Your task to perform on an android device: change the clock display to show seconds Image 0: 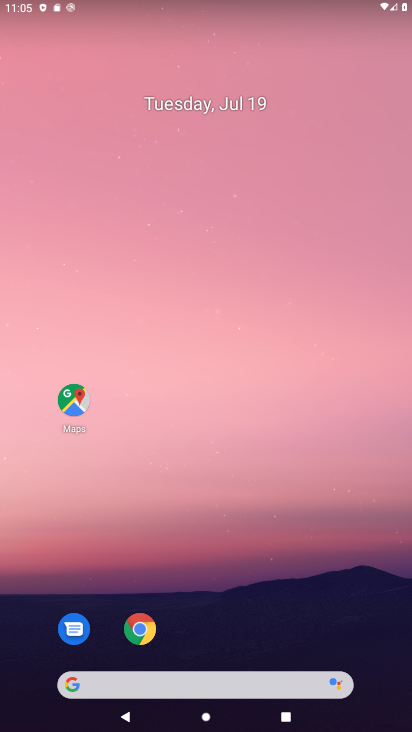
Step 0: drag from (345, 602) to (377, 111)
Your task to perform on an android device: change the clock display to show seconds Image 1: 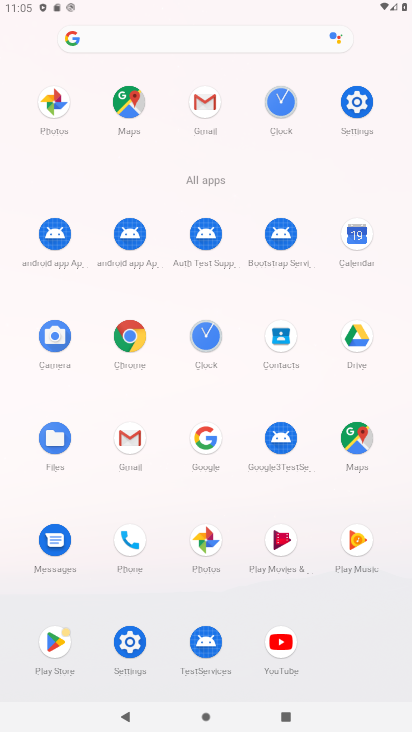
Step 1: click (215, 338)
Your task to perform on an android device: change the clock display to show seconds Image 2: 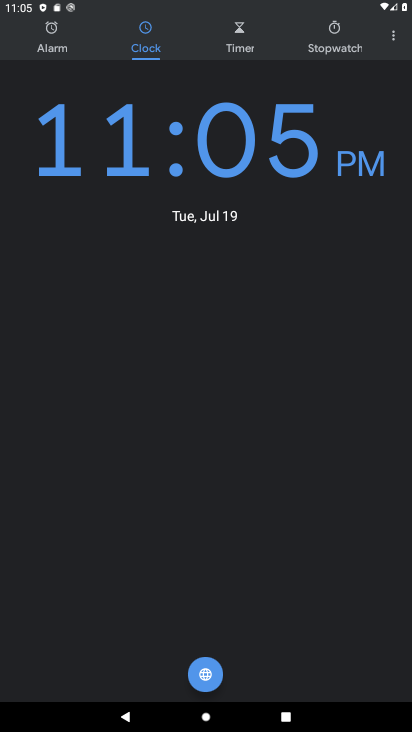
Step 2: click (394, 40)
Your task to perform on an android device: change the clock display to show seconds Image 3: 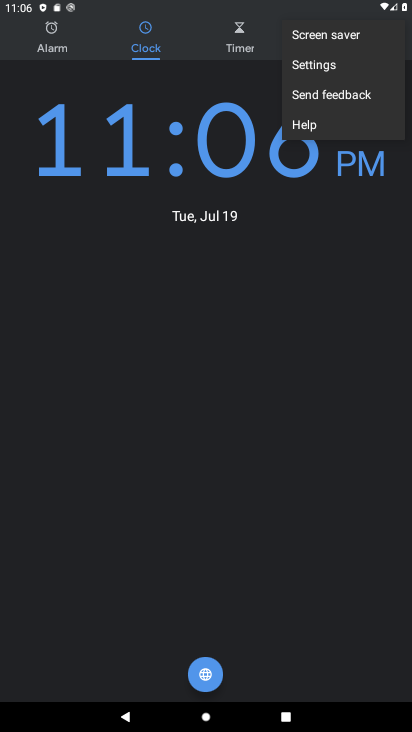
Step 3: click (350, 64)
Your task to perform on an android device: change the clock display to show seconds Image 4: 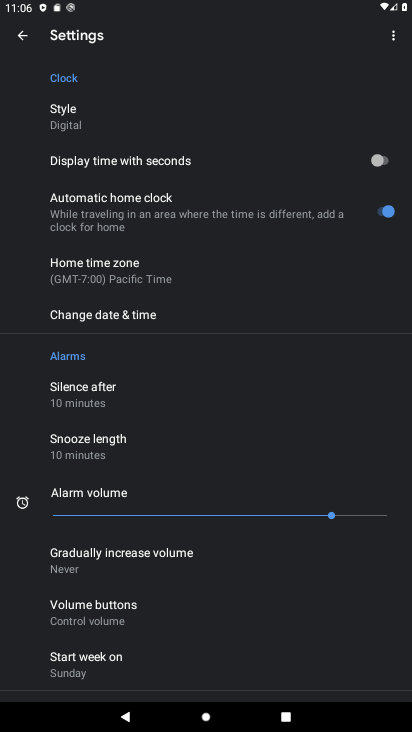
Step 4: drag from (308, 418) to (312, 358)
Your task to perform on an android device: change the clock display to show seconds Image 5: 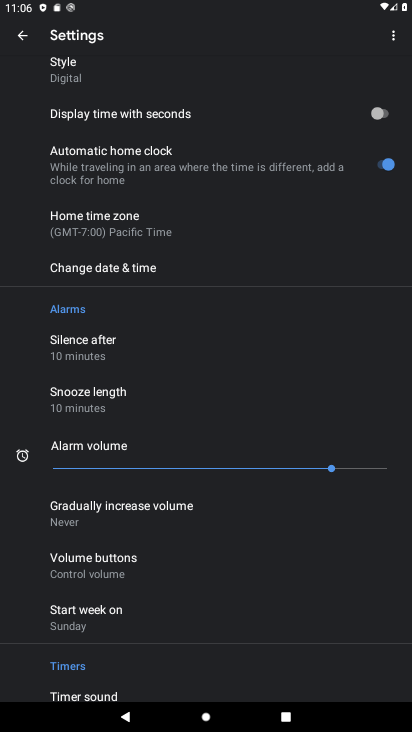
Step 5: drag from (298, 442) to (296, 349)
Your task to perform on an android device: change the clock display to show seconds Image 6: 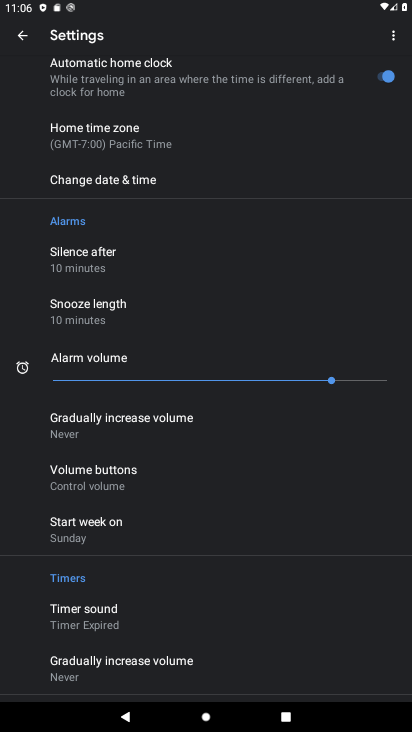
Step 6: drag from (289, 432) to (288, 325)
Your task to perform on an android device: change the clock display to show seconds Image 7: 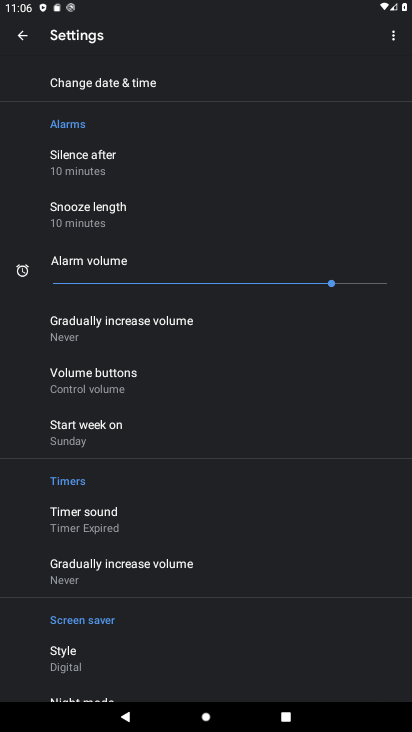
Step 7: drag from (293, 226) to (287, 308)
Your task to perform on an android device: change the clock display to show seconds Image 8: 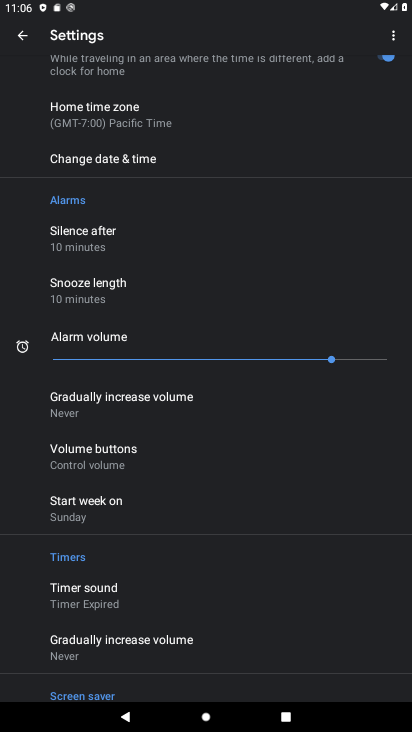
Step 8: drag from (292, 222) to (294, 332)
Your task to perform on an android device: change the clock display to show seconds Image 9: 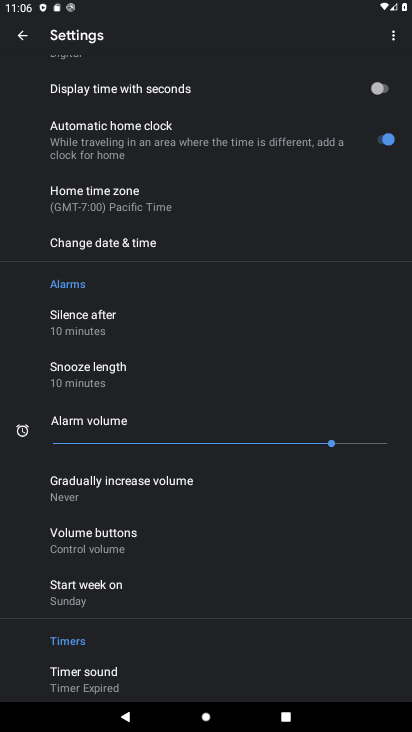
Step 9: drag from (304, 206) to (298, 321)
Your task to perform on an android device: change the clock display to show seconds Image 10: 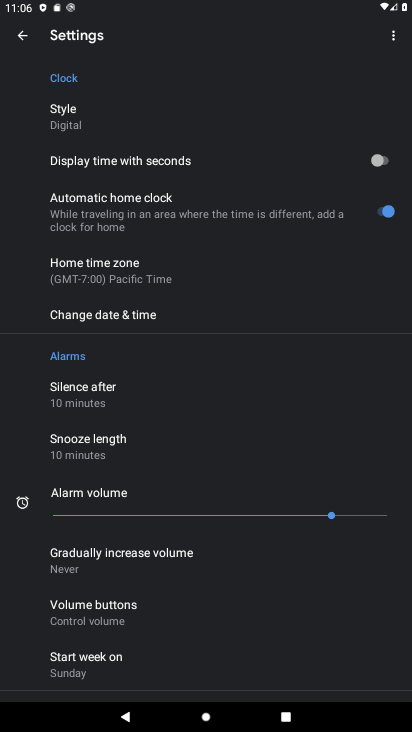
Step 10: click (367, 166)
Your task to perform on an android device: change the clock display to show seconds Image 11: 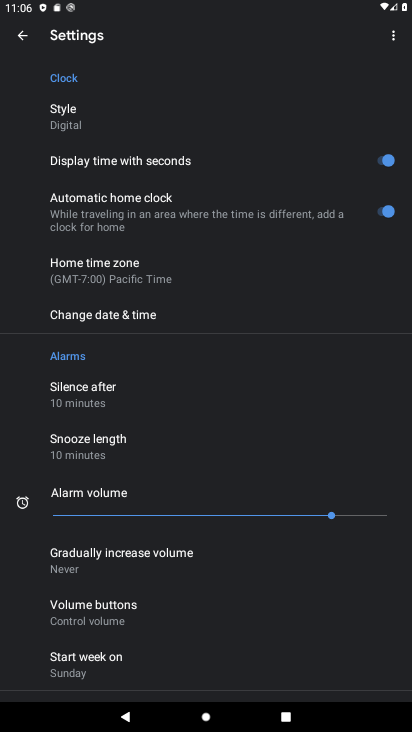
Step 11: task complete